Your task to perform on an android device: toggle improve location accuracy Image 0: 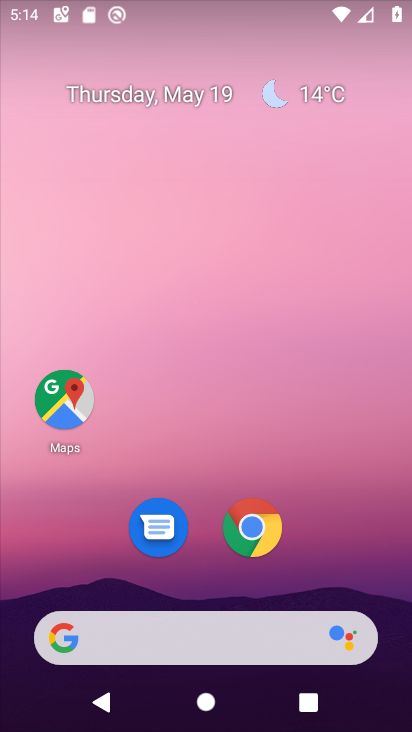
Step 0: drag from (332, 542) to (271, 28)
Your task to perform on an android device: toggle improve location accuracy Image 1: 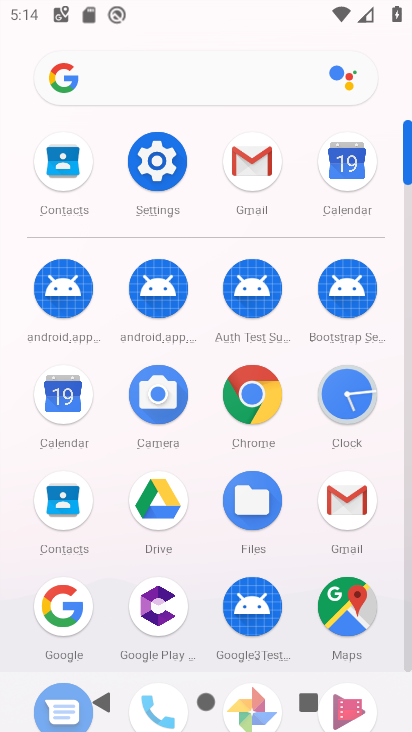
Step 1: click (150, 150)
Your task to perform on an android device: toggle improve location accuracy Image 2: 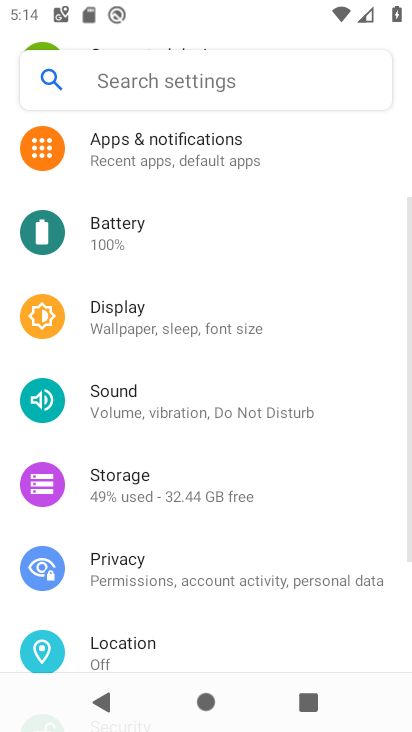
Step 2: click (253, 634)
Your task to perform on an android device: toggle improve location accuracy Image 3: 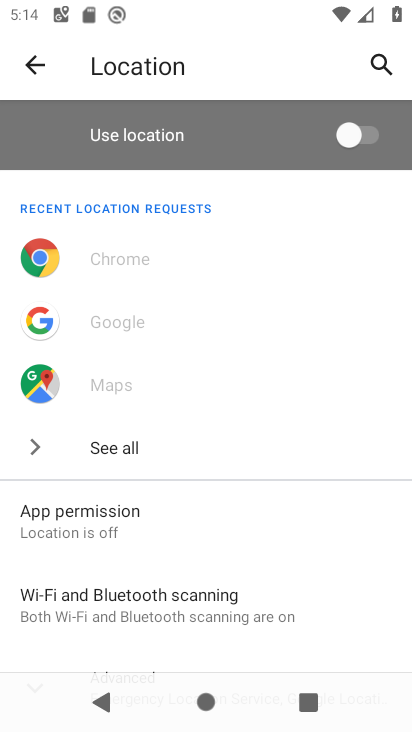
Step 3: drag from (245, 493) to (254, 206)
Your task to perform on an android device: toggle improve location accuracy Image 4: 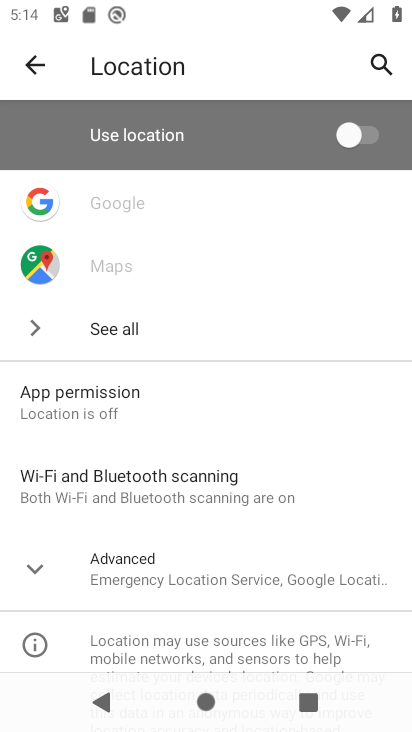
Step 4: click (230, 564)
Your task to perform on an android device: toggle improve location accuracy Image 5: 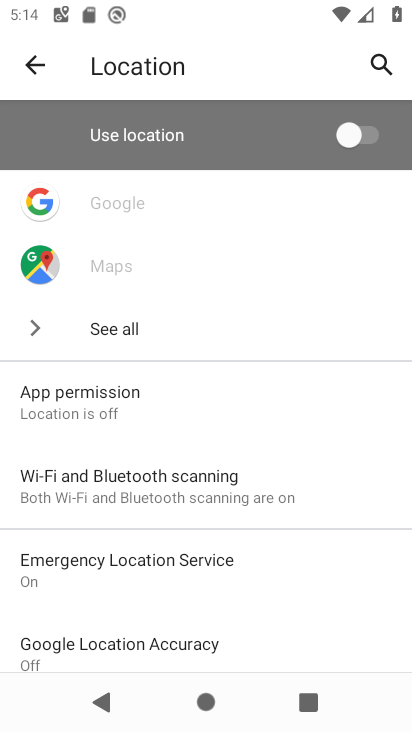
Step 5: click (270, 638)
Your task to perform on an android device: toggle improve location accuracy Image 6: 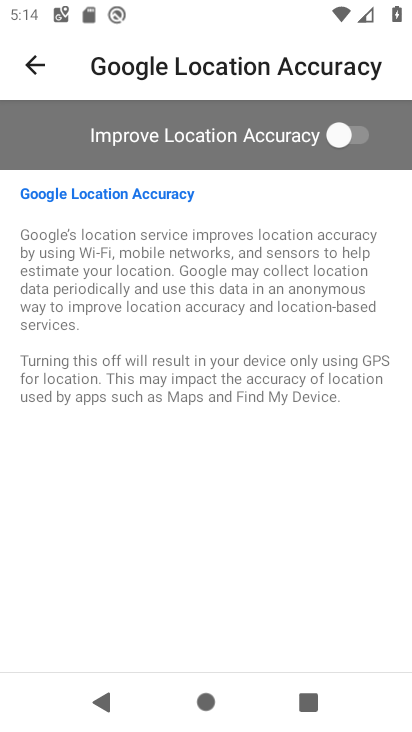
Step 6: click (337, 140)
Your task to perform on an android device: toggle improve location accuracy Image 7: 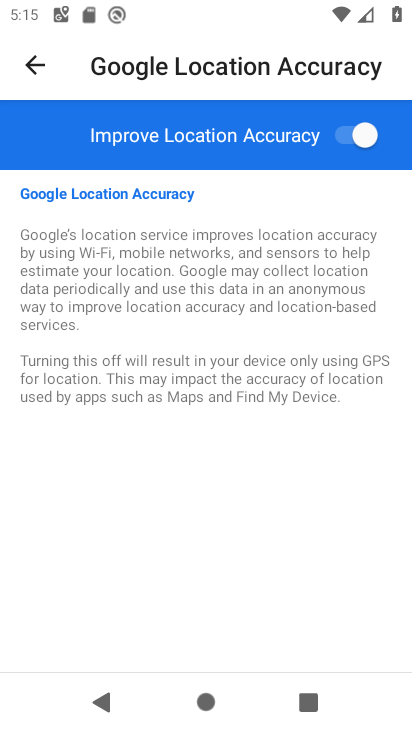
Step 7: task complete